Your task to perform on an android device: uninstall "Google Chat" Image 0: 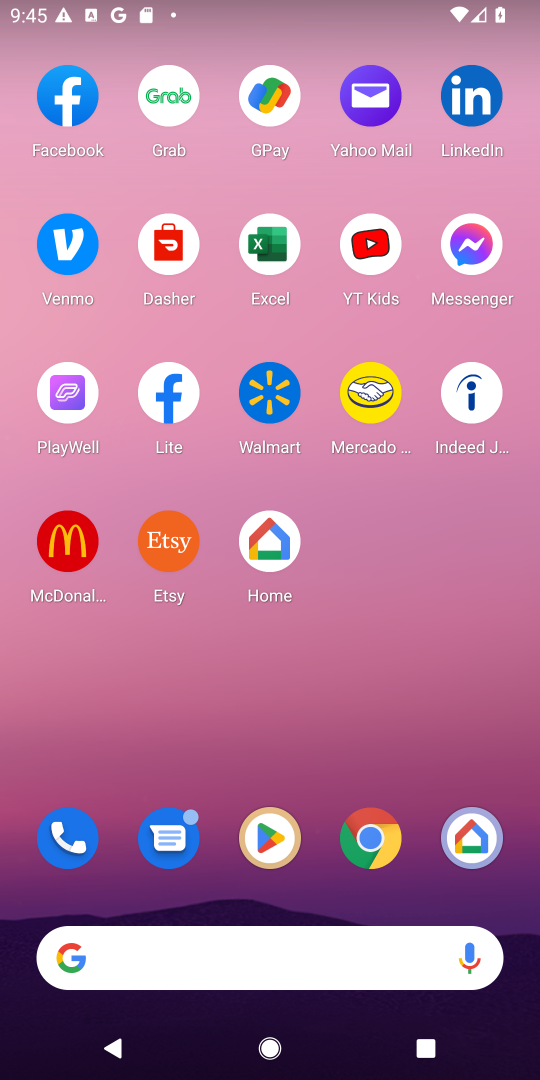
Step 0: click (280, 837)
Your task to perform on an android device: uninstall "Google Chat" Image 1: 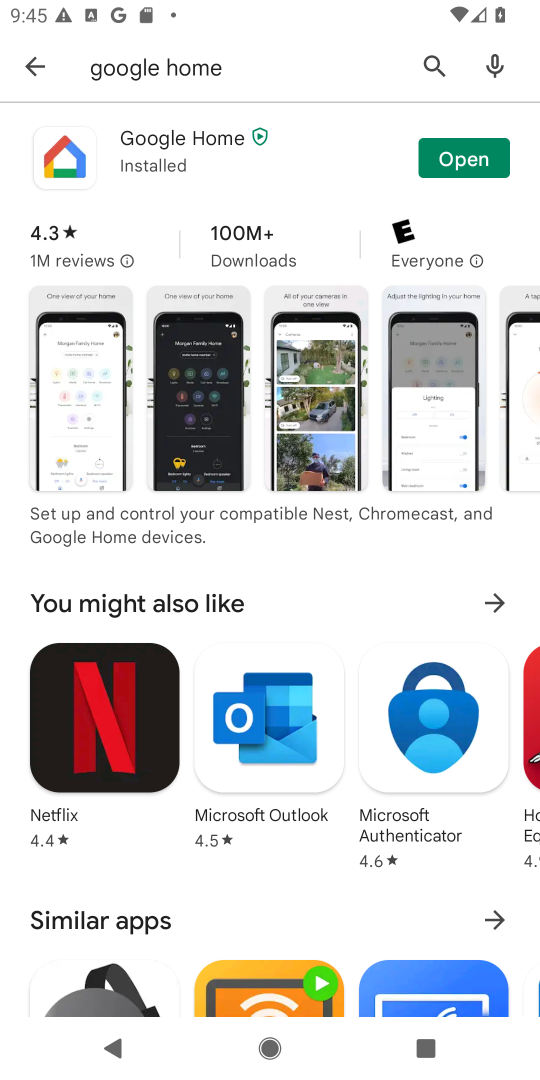
Step 1: click (435, 61)
Your task to perform on an android device: uninstall "Google Chat" Image 2: 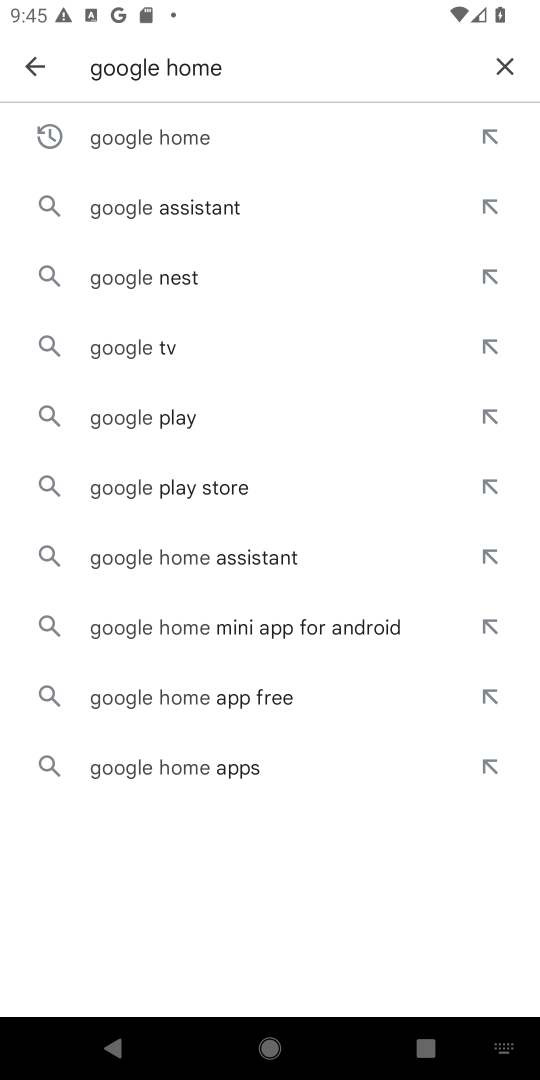
Step 2: click (499, 50)
Your task to perform on an android device: uninstall "Google Chat" Image 3: 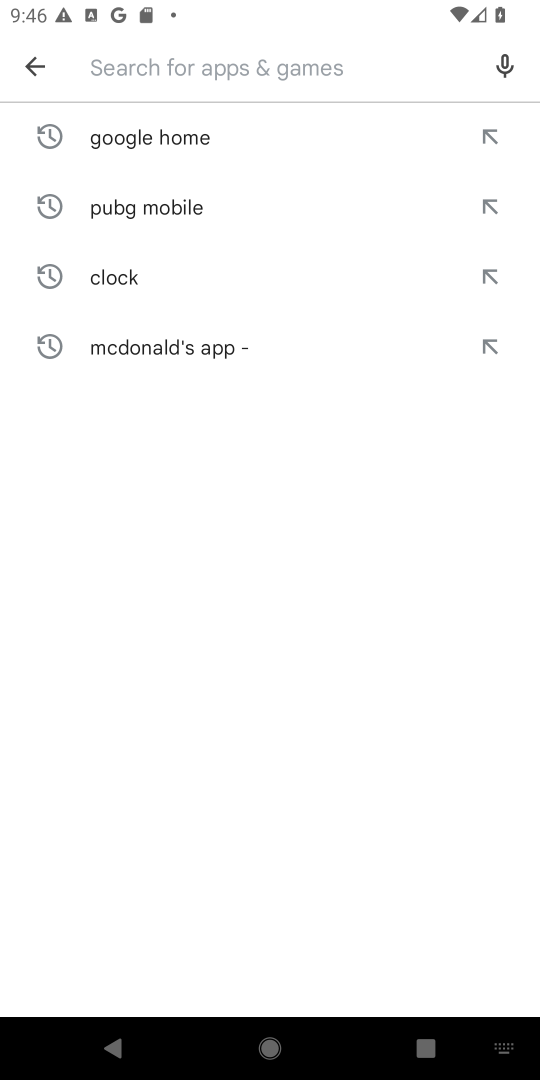
Step 3: type "Google Chat"
Your task to perform on an android device: uninstall "Google Chat" Image 4: 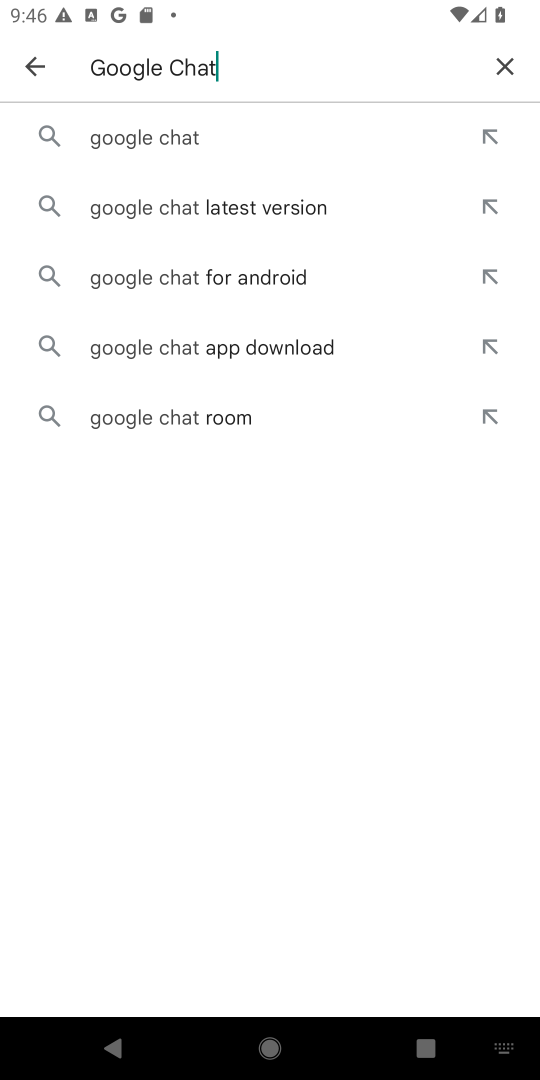
Step 4: click (196, 134)
Your task to perform on an android device: uninstall "Google Chat" Image 5: 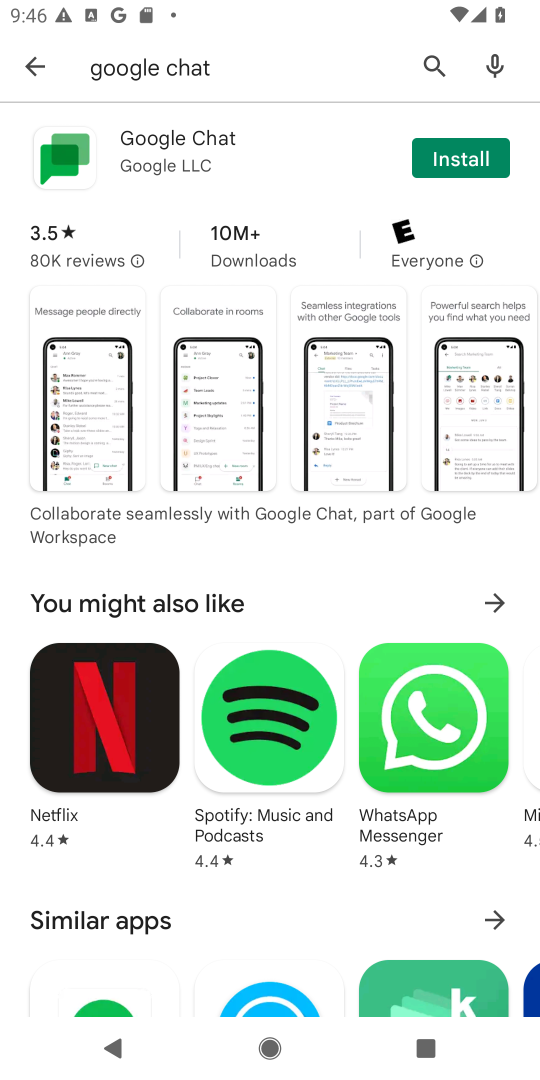
Step 5: task complete